Your task to perform on an android device: turn off location history Image 0: 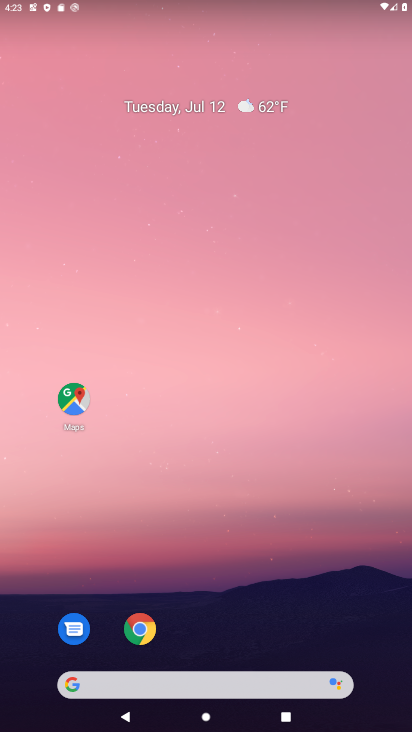
Step 0: drag from (215, 654) to (215, 608)
Your task to perform on an android device: turn off location history Image 1: 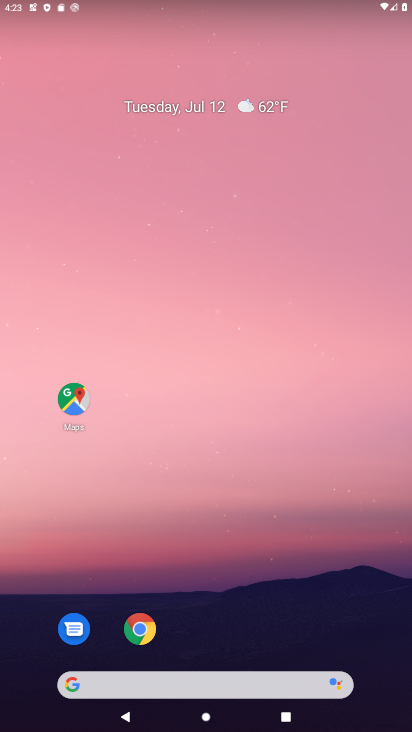
Step 1: drag from (197, 646) to (115, 42)
Your task to perform on an android device: turn off location history Image 2: 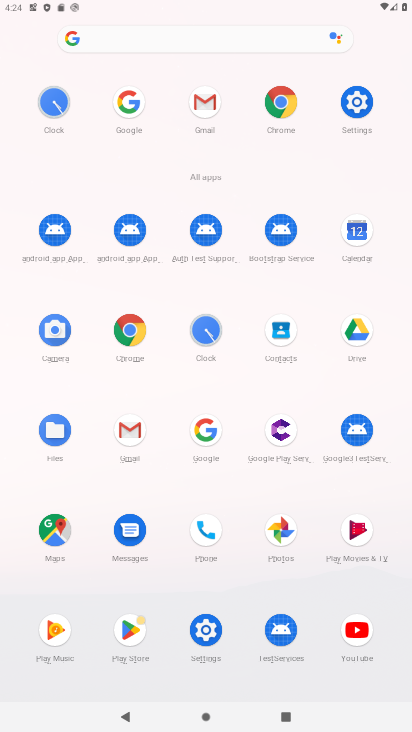
Step 2: click (211, 624)
Your task to perform on an android device: turn off location history Image 3: 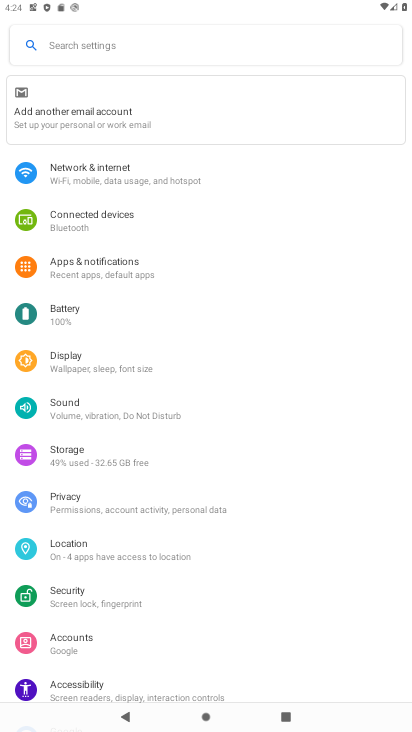
Step 3: click (45, 546)
Your task to perform on an android device: turn off location history Image 4: 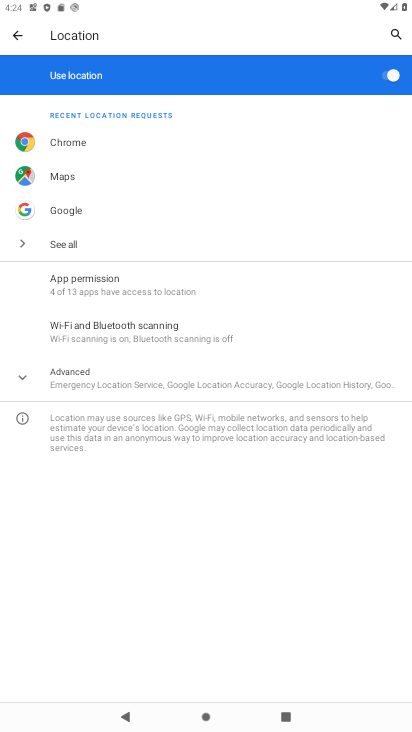
Step 4: click (54, 370)
Your task to perform on an android device: turn off location history Image 5: 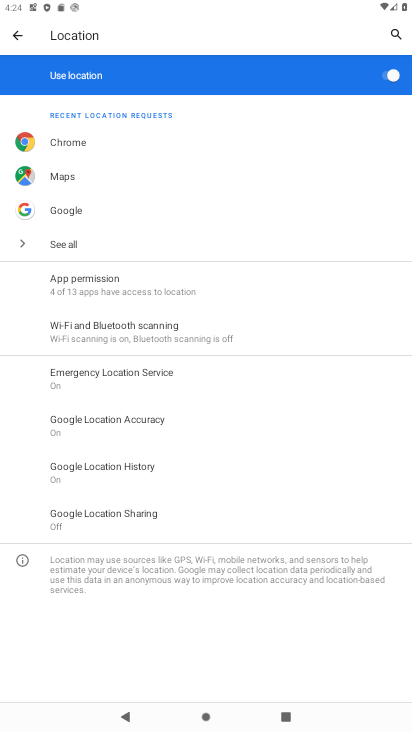
Step 5: click (118, 468)
Your task to perform on an android device: turn off location history Image 6: 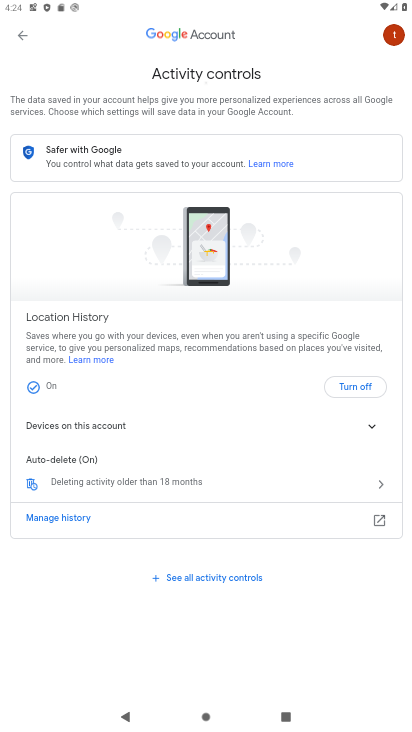
Step 6: click (364, 386)
Your task to perform on an android device: turn off location history Image 7: 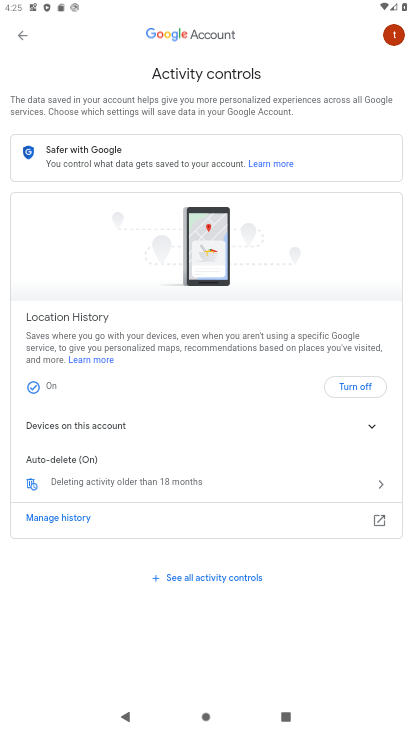
Step 7: click (368, 392)
Your task to perform on an android device: turn off location history Image 8: 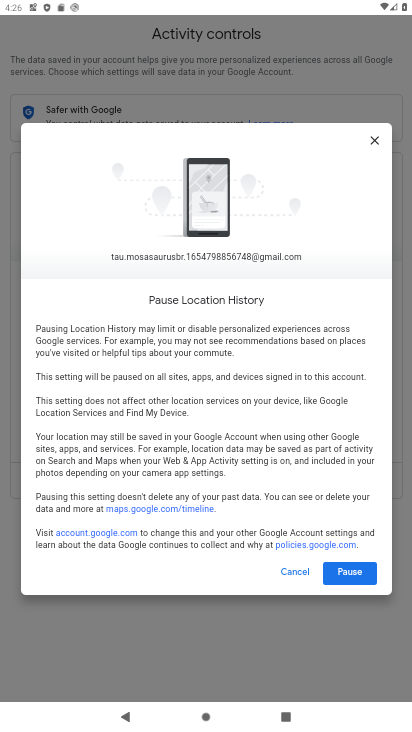
Step 8: click (343, 567)
Your task to perform on an android device: turn off location history Image 9: 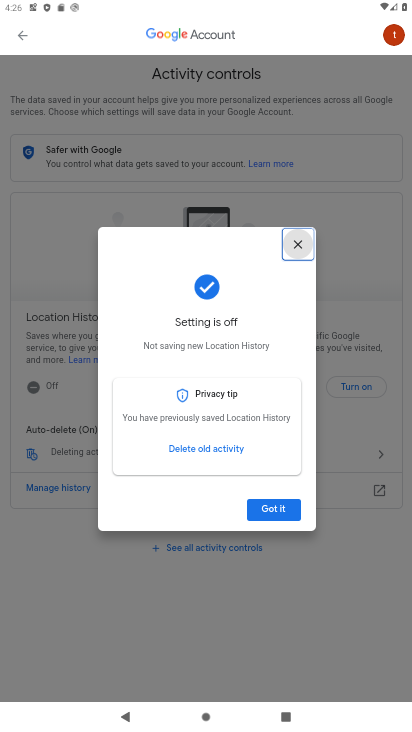
Step 9: click (294, 513)
Your task to perform on an android device: turn off location history Image 10: 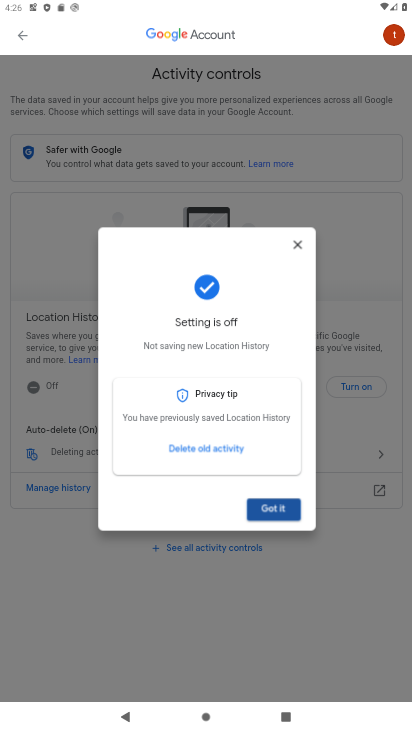
Step 10: task complete